Your task to perform on an android device: search for starred emails in the gmail app Image 0: 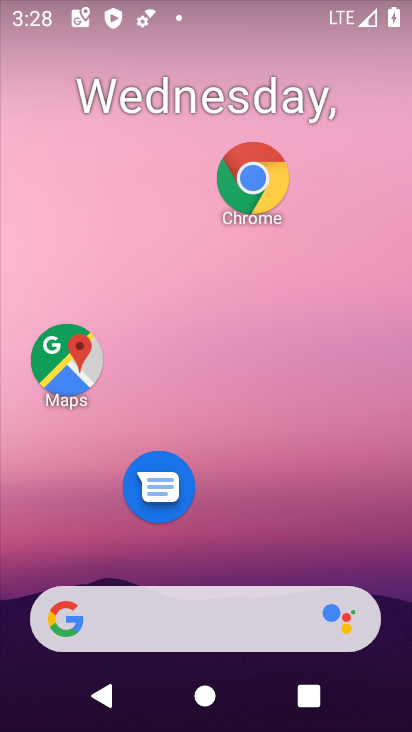
Step 0: drag from (300, 545) to (295, 56)
Your task to perform on an android device: search for starred emails in the gmail app Image 1: 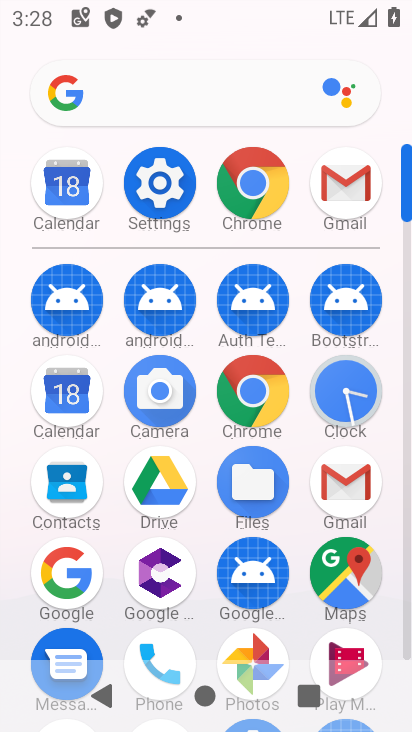
Step 1: click (351, 480)
Your task to perform on an android device: search for starred emails in the gmail app Image 2: 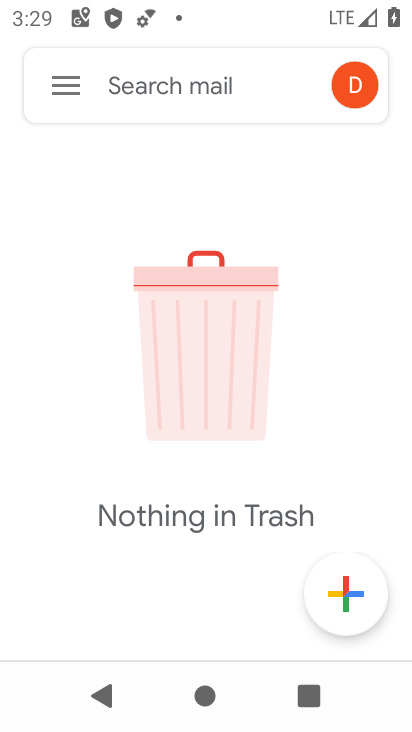
Step 2: click (58, 85)
Your task to perform on an android device: search for starred emails in the gmail app Image 3: 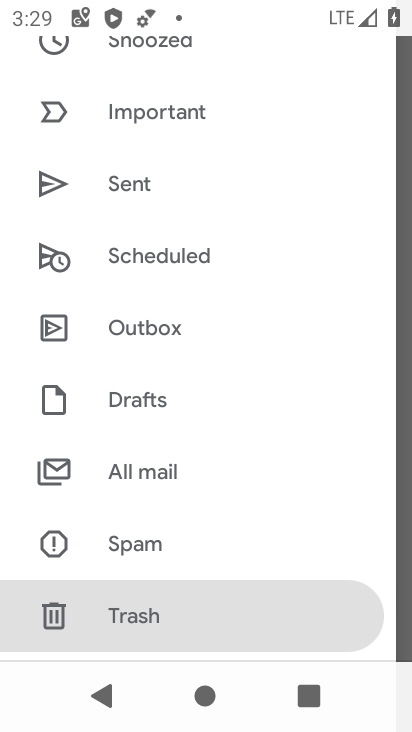
Step 3: drag from (263, 158) to (261, 508)
Your task to perform on an android device: search for starred emails in the gmail app Image 4: 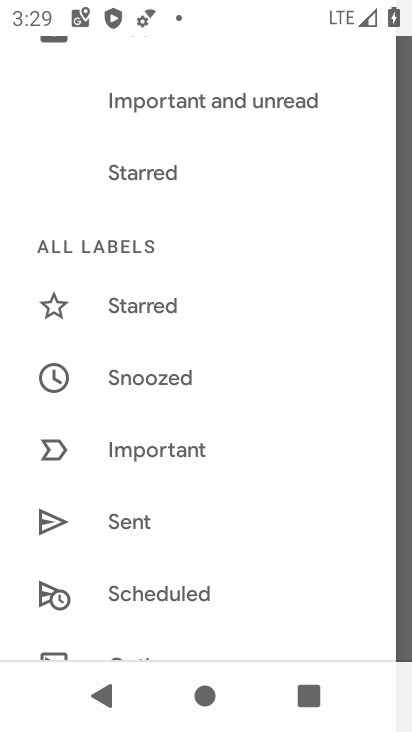
Step 4: click (142, 302)
Your task to perform on an android device: search for starred emails in the gmail app Image 5: 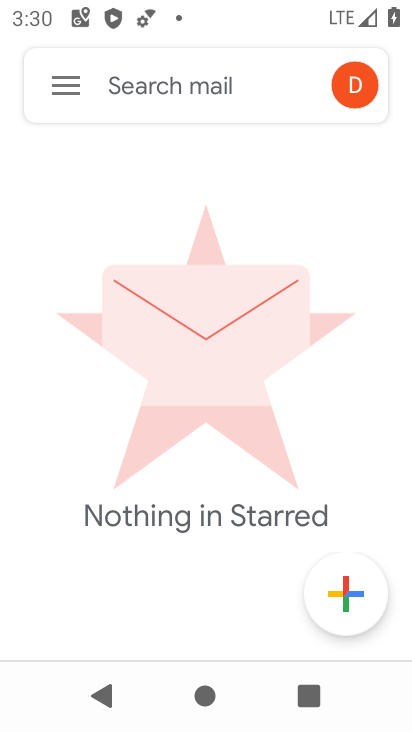
Step 5: task complete